Your task to perform on an android device: Search for Italian restaurants on Maps Image 0: 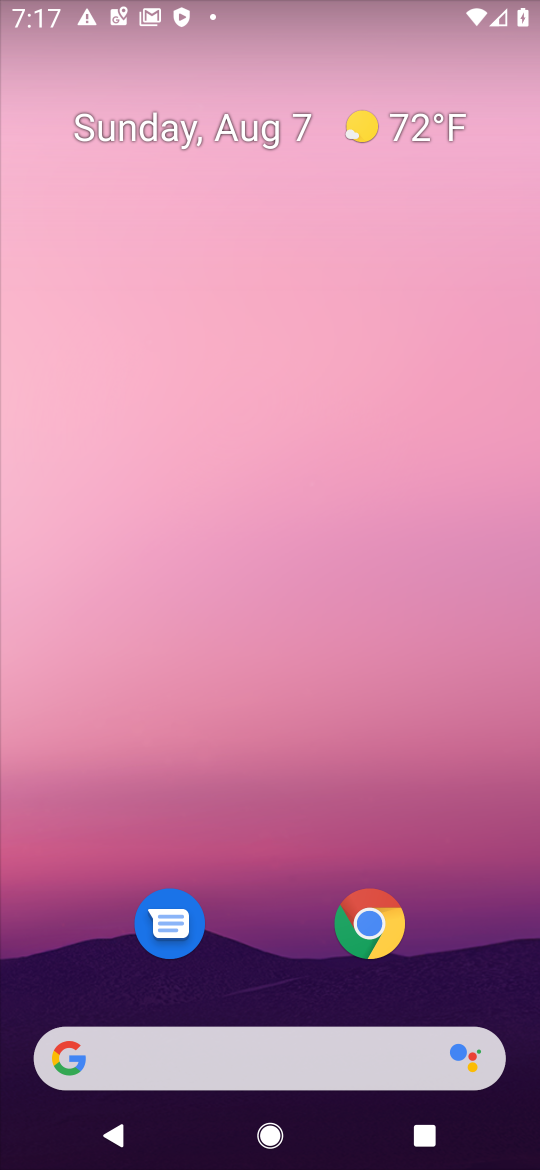
Step 0: drag from (499, 949) to (239, 65)
Your task to perform on an android device: Search for Italian restaurants on Maps Image 1: 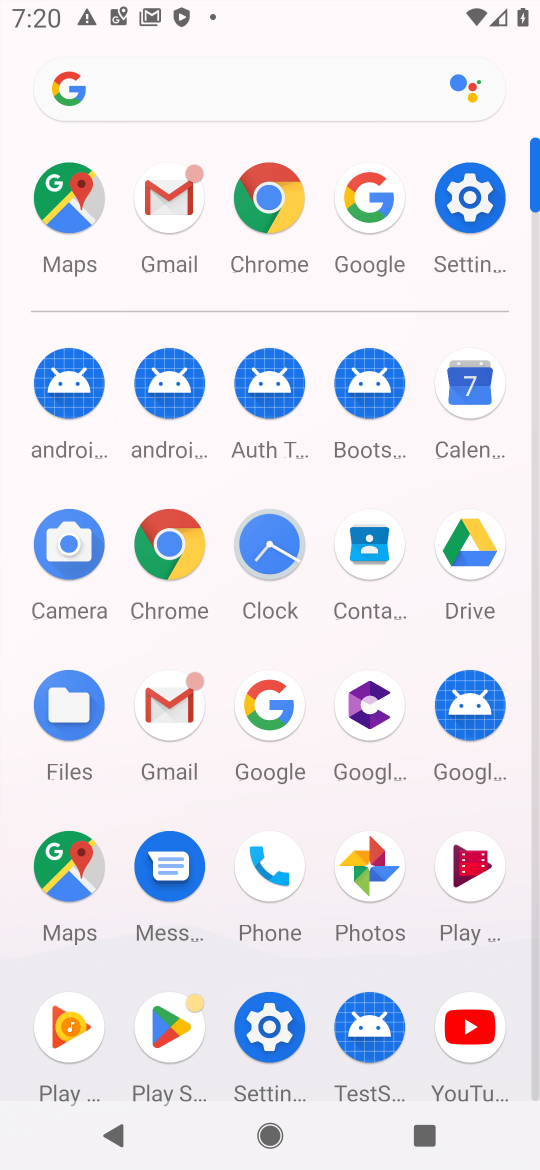
Step 1: click (66, 862)
Your task to perform on an android device: Search for Italian restaurants on Maps Image 2: 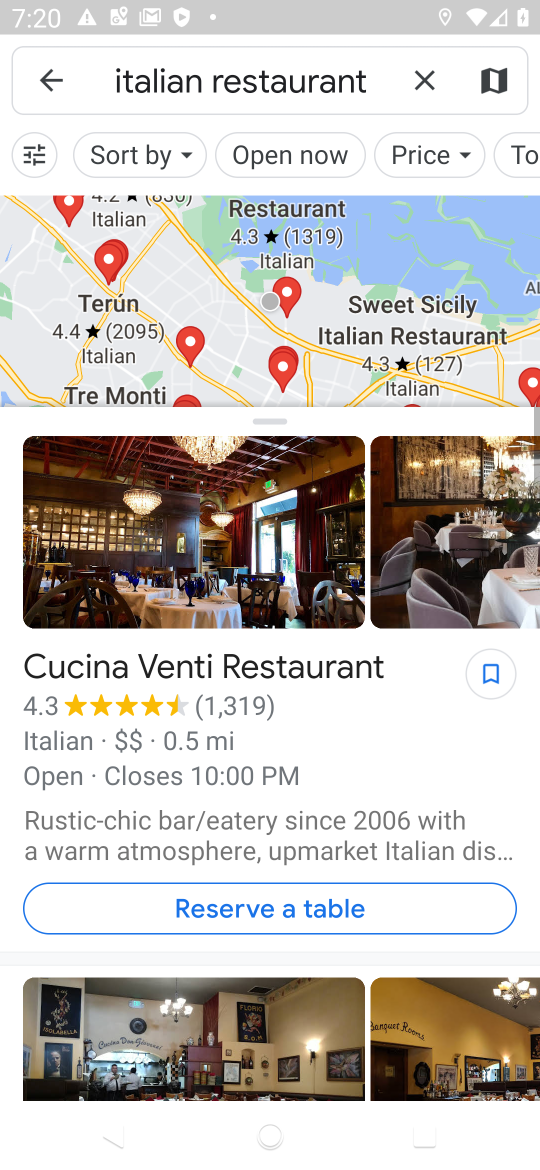
Step 2: click (411, 81)
Your task to perform on an android device: Search for Italian restaurants on Maps Image 3: 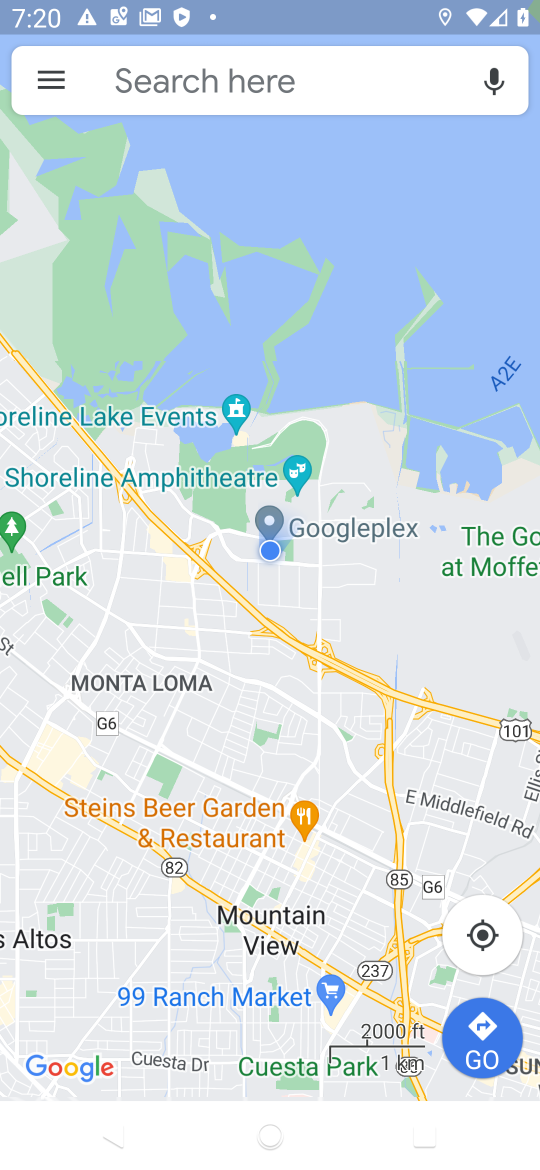
Step 3: click (194, 81)
Your task to perform on an android device: Search for Italian restaurants on Maps Image 4: 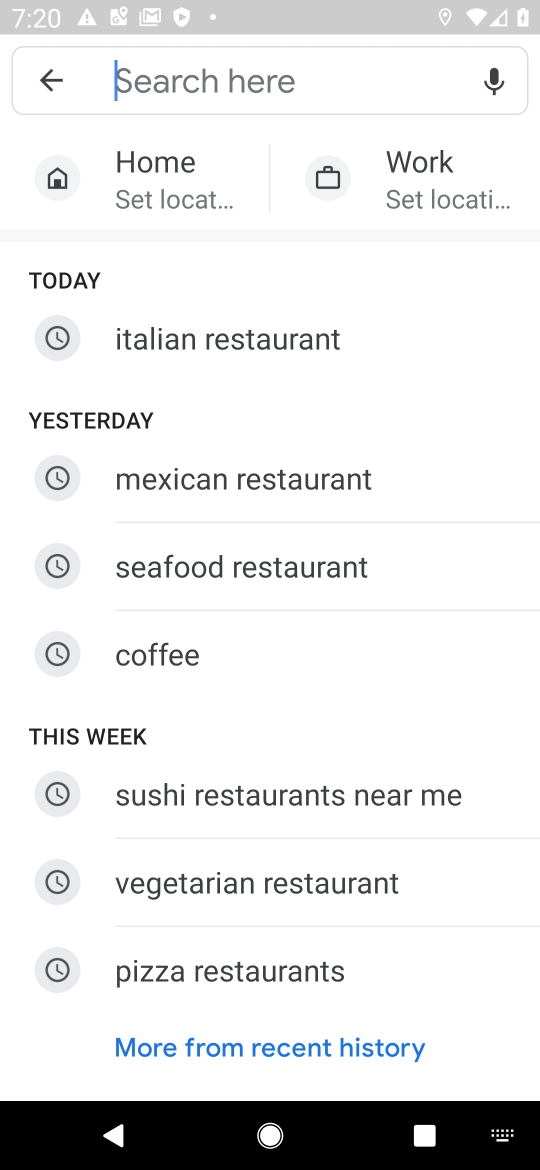
Step 4: click (251, 345)
Your task to perform on an android device: Search for Italian restaurants on Maps Image 5: 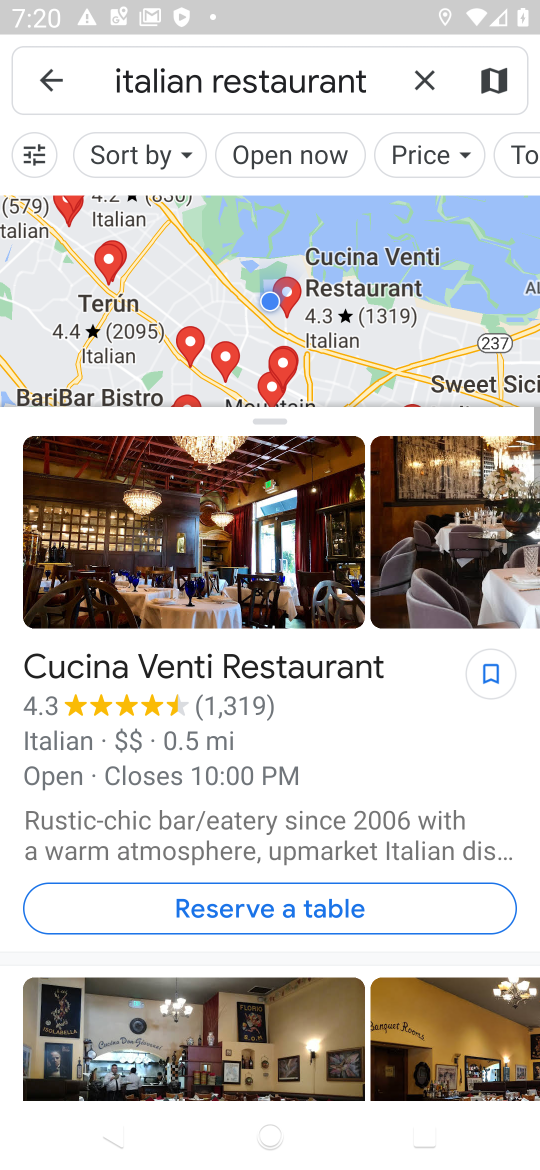
Step 5: task complete